Your task to perform on an android device: turn off location Image 0: 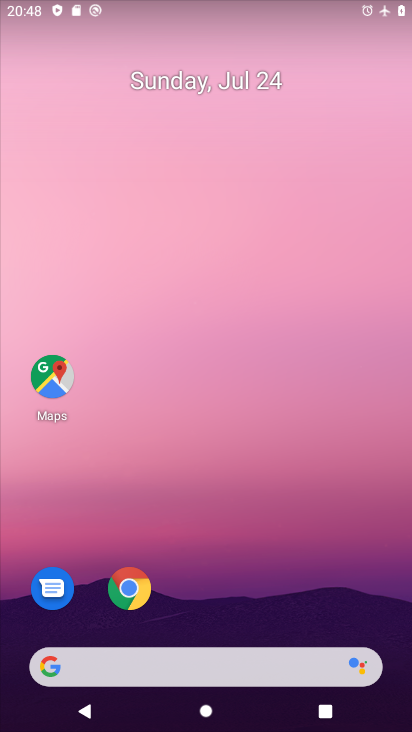
Step 0: drag from (163, 636) to (146, 55)
Your task to perform on an android device: turn off location Image 1: 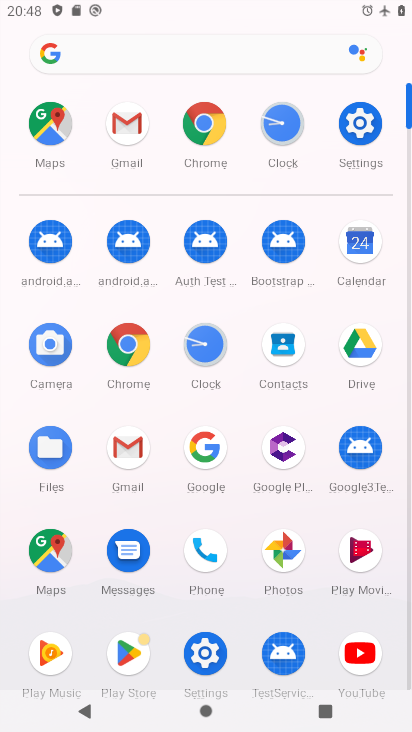
Step 1: click (362, 125)
Your task to perform on an android device: turn off location Image 2: 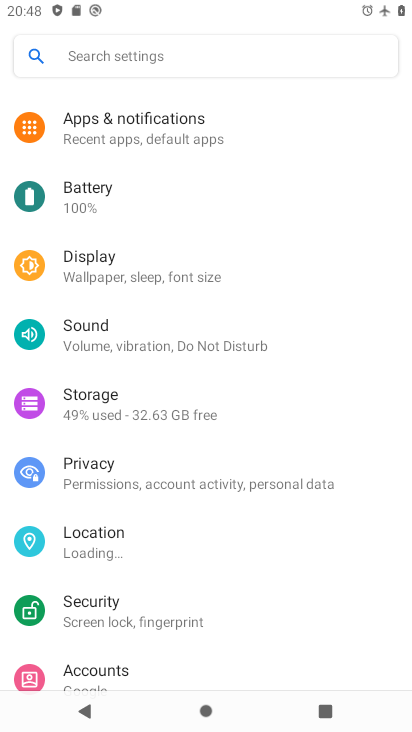
Step 2: click (114, 541)
Your task to perform on an android device: turn off location Image 3: 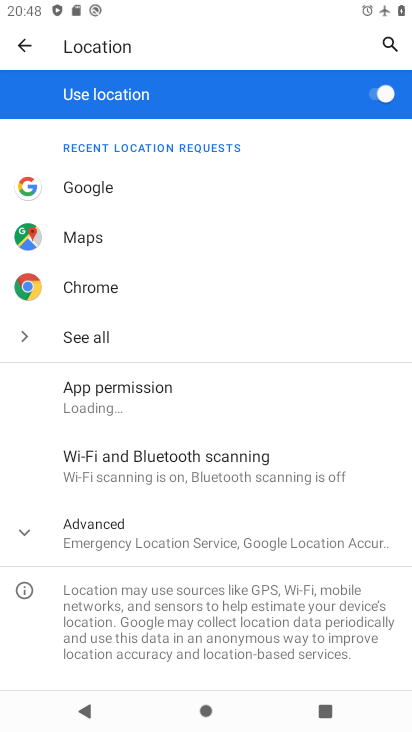
Step 3: click (387, 79)
Your task to perform on an android device: turn off location Image 4: 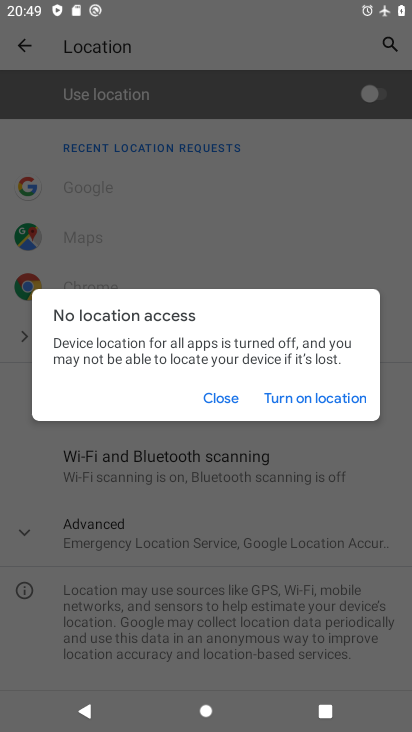
Step 4: click (223, 398)
Your task to perform on an android device: turn off location Image 5: 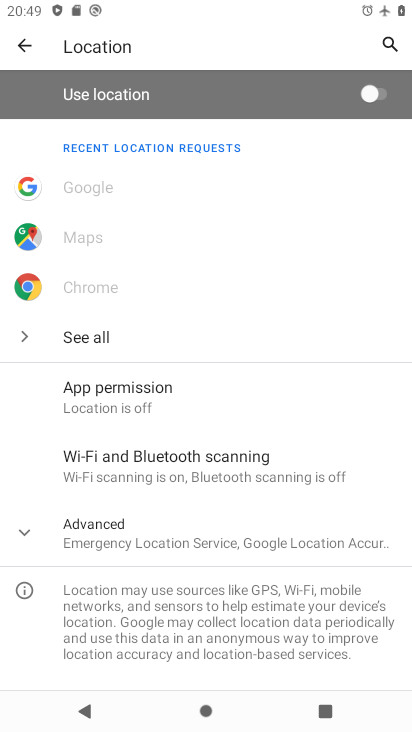
Step 5: task complete